Your task to perform on an android device: Open Google Chrome Image 0: 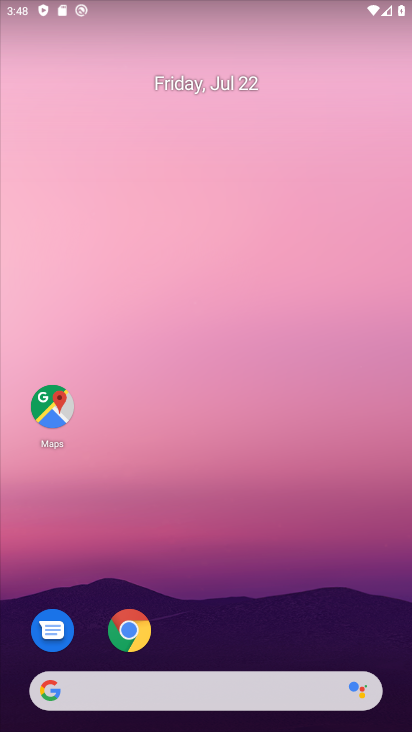
Step 0: drag from (224, 648) to (176, 48)
Your task to perform on an android device: Open Google Chrome Image 1: 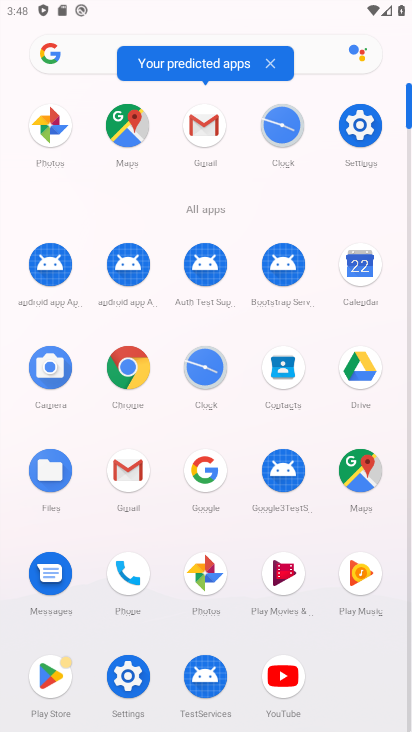
Step 1: click (121, 366)
Your task to perform on an android device: Open Google Chrome Image 2: 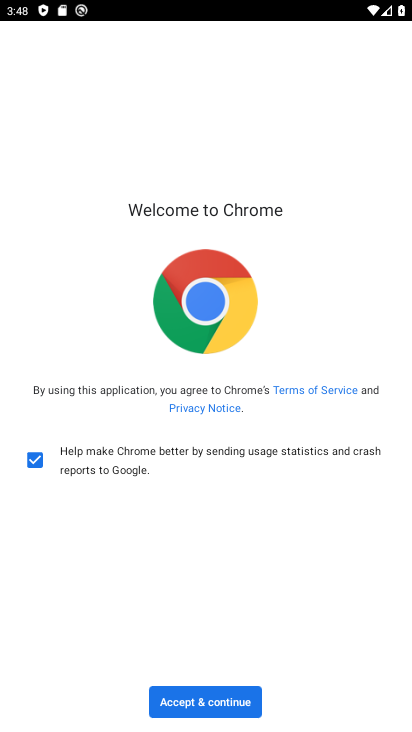
Step 2: click (204, 698)
Your task to perform on an android device: Open Google Chrome Image 3: 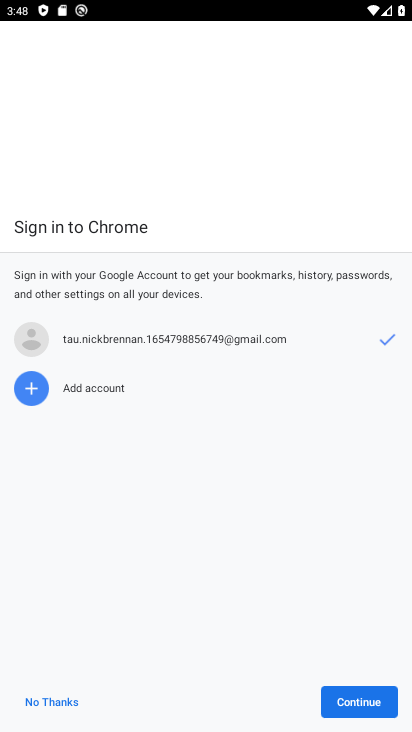
Step 3: click (75, 701)
Your task to perform on an android device: Open Google Chrome Image 4: 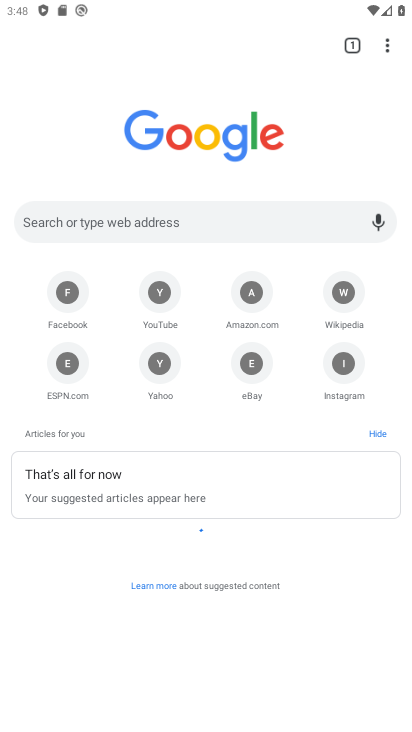
Step 4: task complete